Your task to perform on an android device: View the shopping cart on target. Add "razer deathadder" to the cart on target, then select checkout. Image 0: 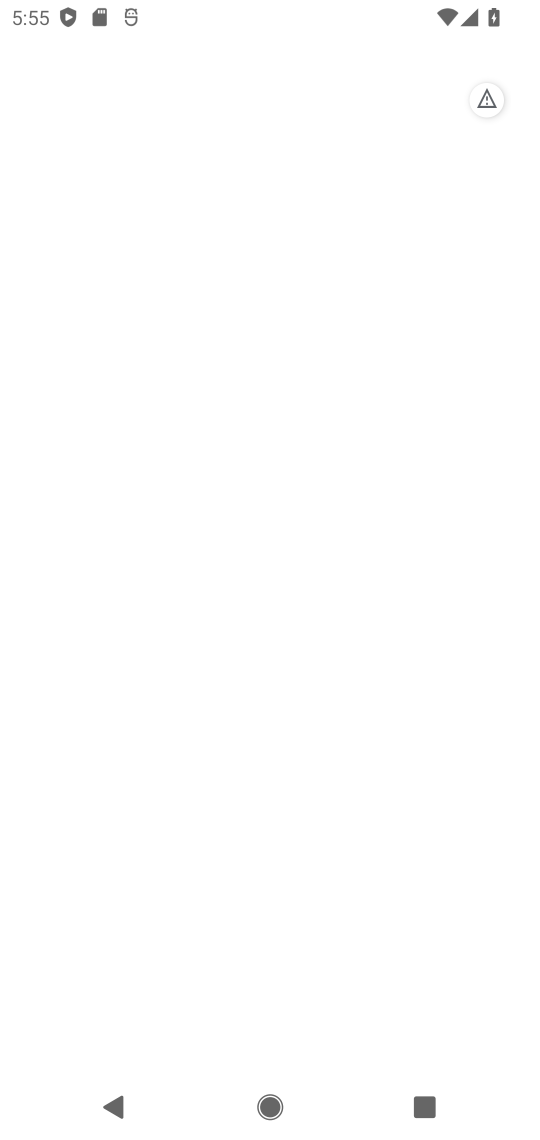
Step 0: click (443, 81)
Your task to perform on an android device: View the shopping cart on target. Add "razer deathadder" to the cart on target, then select checkout. Image 1: 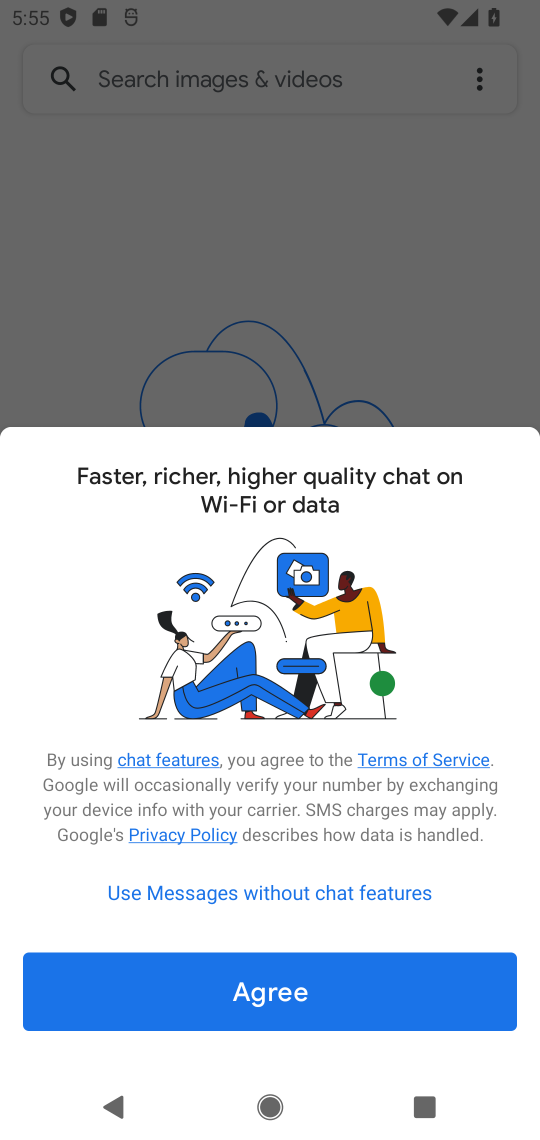
Step 1: press home button
Your task to perform on an android device: View the shopping cart on target. Add "razer deathadder" to the cart on target, then select checkout. Image 2: 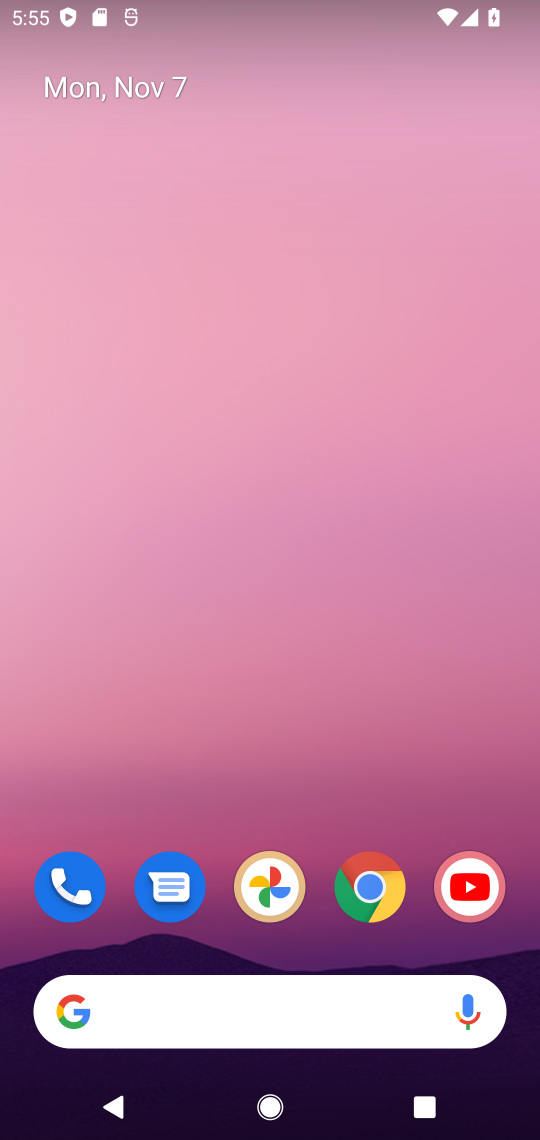
Step 2: click (371, 884)
Your task to perform on an android device: View the shopping cart on target. Add "razer deathadder" to the cart on target, then select checkout. Image 3: 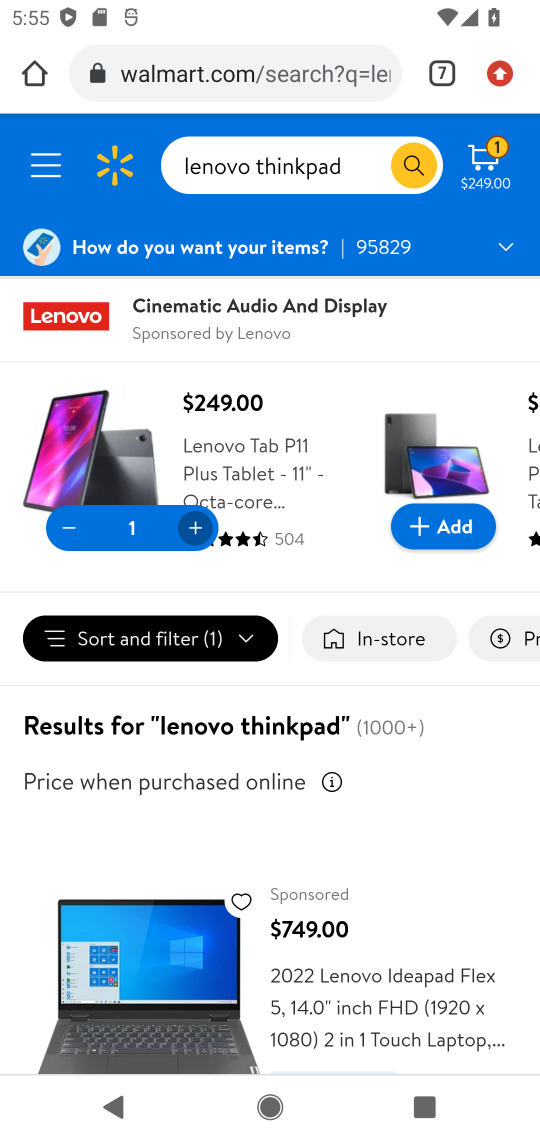
Step 3: click (440, 70)
Your task to perform on an android device: View the shopping cart on target. Add "razer deathadder" to the cart on target, then select checkout. Image 4: 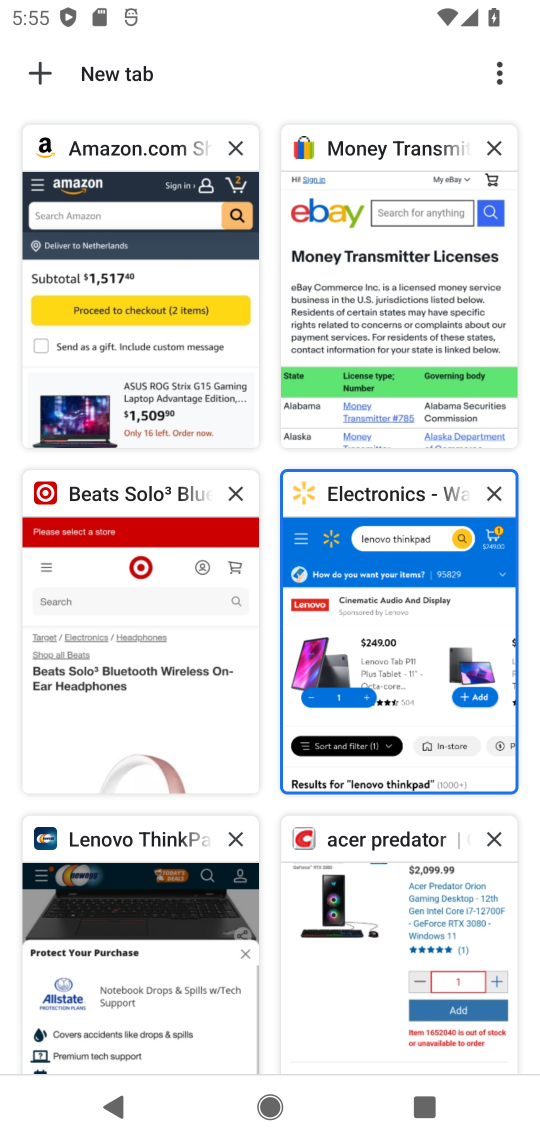
Step 4: click (76, 628)
Your task to perform on an android device: View the shopping cart on target. Add "razer deathadder" to the cart on target, then select checkout. Image 5: 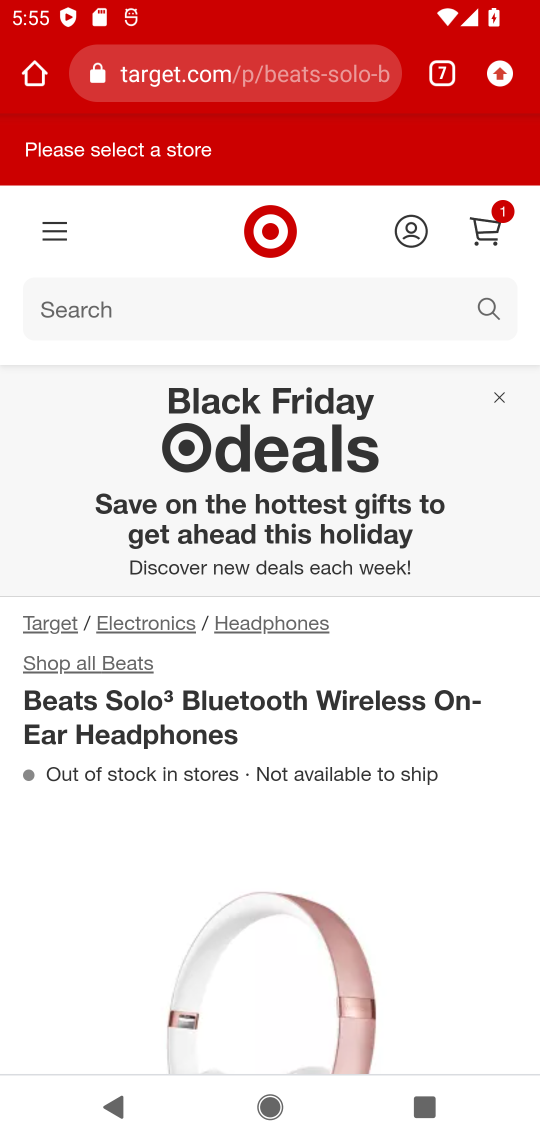
Step 5: click (189, 317)
Your task to perform on an android device: View the shopping cart on target. Add "razer deathadder" to the cart on target, then select checkout. Image 6: 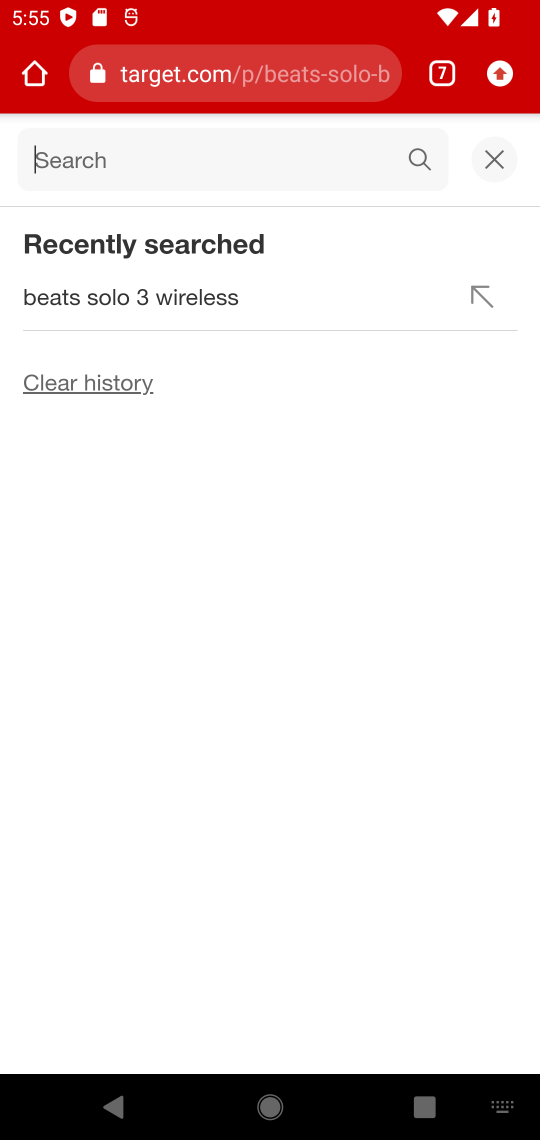
Step 6: type "razer deathadder"
Your task to perform on an android device: View the shopping cart on target. Add "razer deathadder" to the cart on target, then select checkout. Image 7: 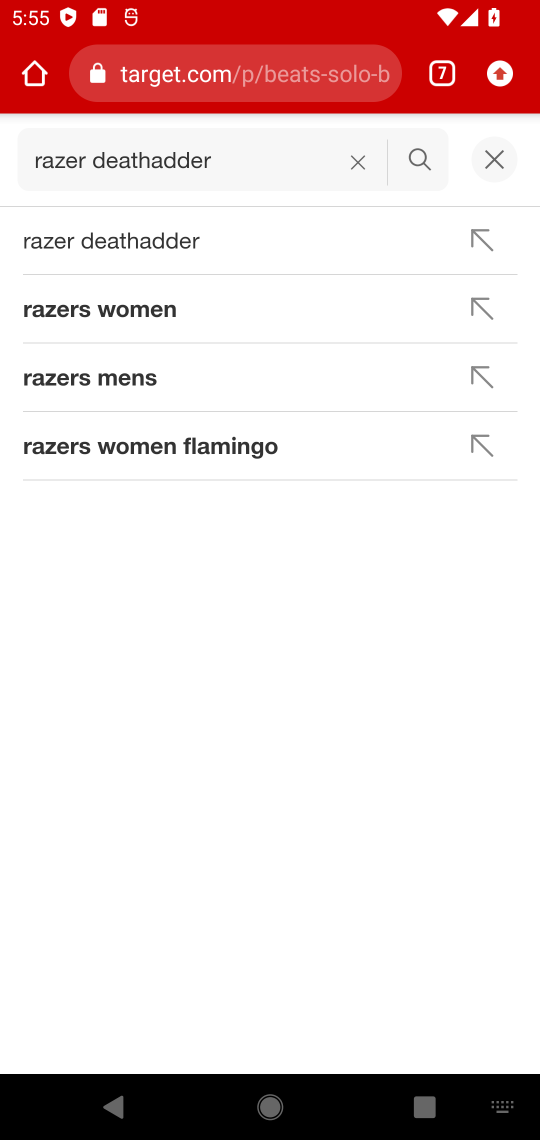
Step 7: click (148, 240)
Your task to perform on an android device: View the shopping cart on target. Add "razer deathadder" to the cart on target, then select checkout. Image 8: 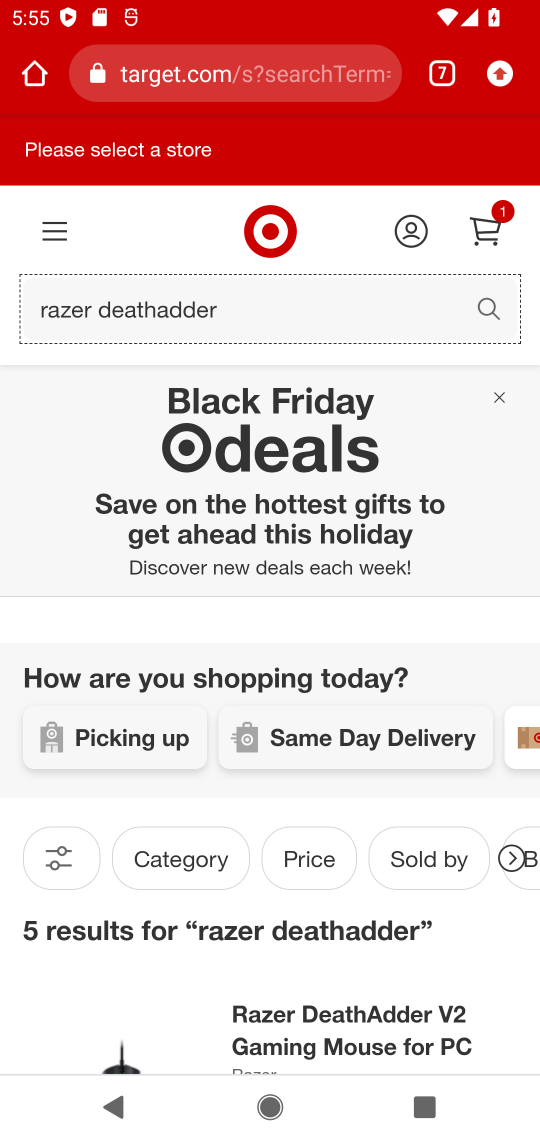
Step 8: drag from (191, 915) to (343, 141)
Your task to perform on an android device: View the shopping cart on target. Add "razer deathadder" to the cart on target, then select checkout. Image 9: 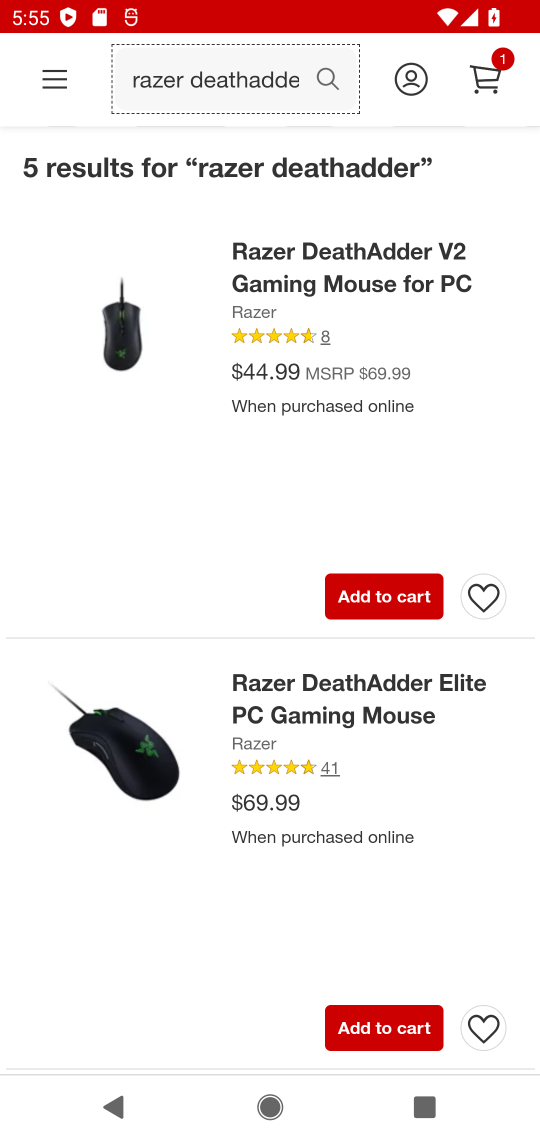
Step 9: click (389, 584)
Your task to perform on an android device: View the shopping cart on target. Add "razer deathadder" to the cart on target, then select checkout. Image 10: 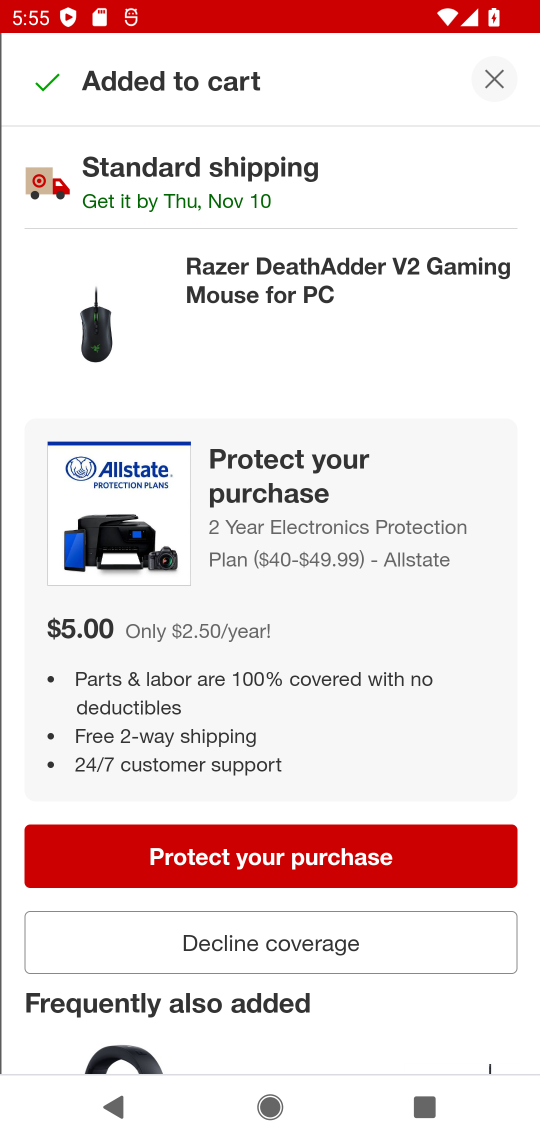
Step 10: click (314, 939)
Your task to perform on an android device: View the shopping cart on target. Add "razer deathadder" to the cart on target, then select checkout. Image 11: 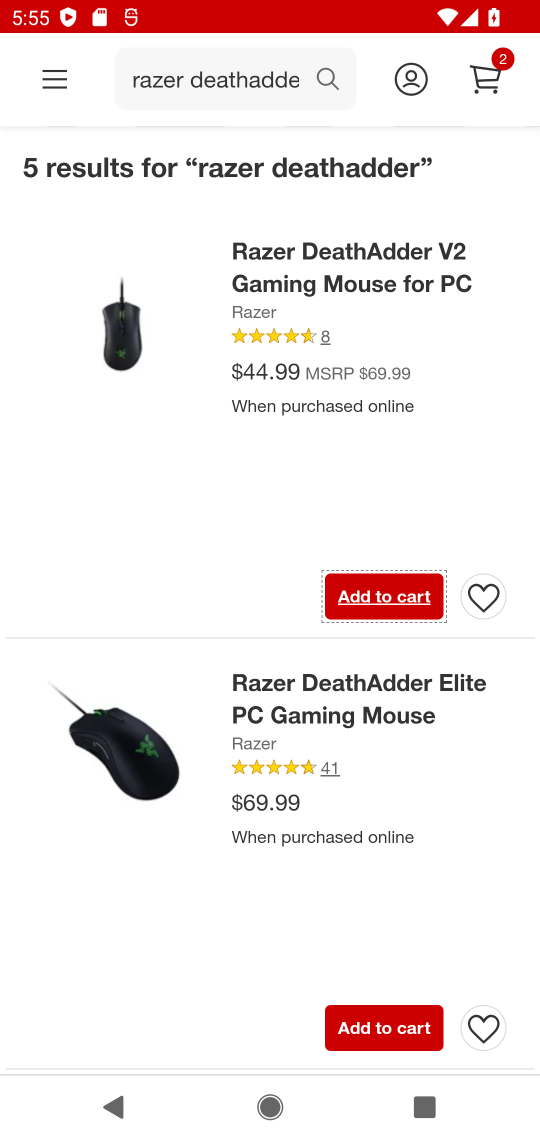
Step 11: click (495, 75)
Your task to perform on an android device: View the shopping cart on target. Add "razer deathadder" to the cart on target, then select checkout. Image 12: 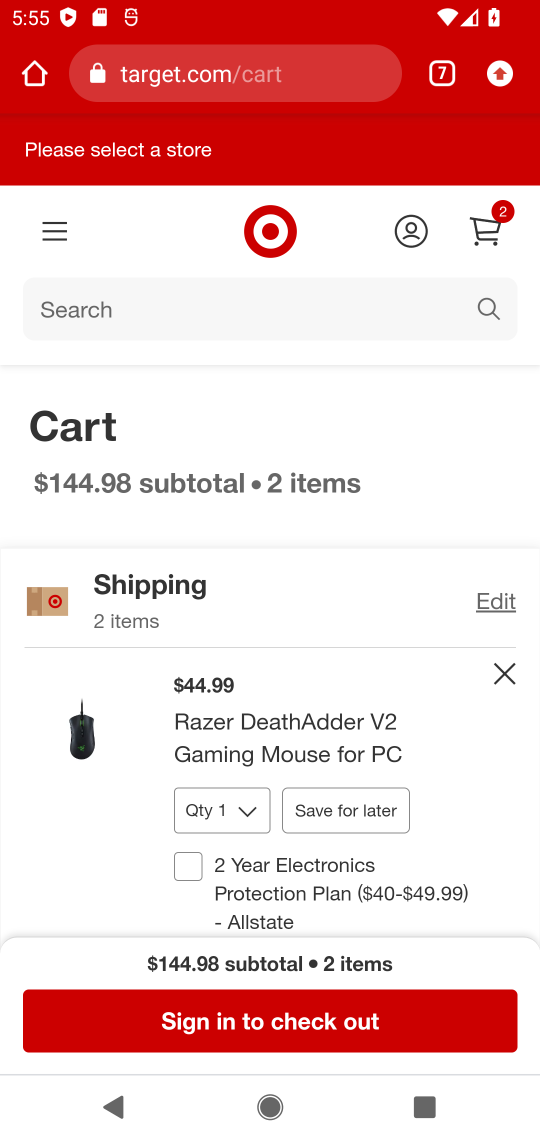
Step 12: click (254, 1044)
Your task to perform on an android device: View the shopping cart on target. Add "razer deathadder" to the cart on target, then select checkout. Image 13: 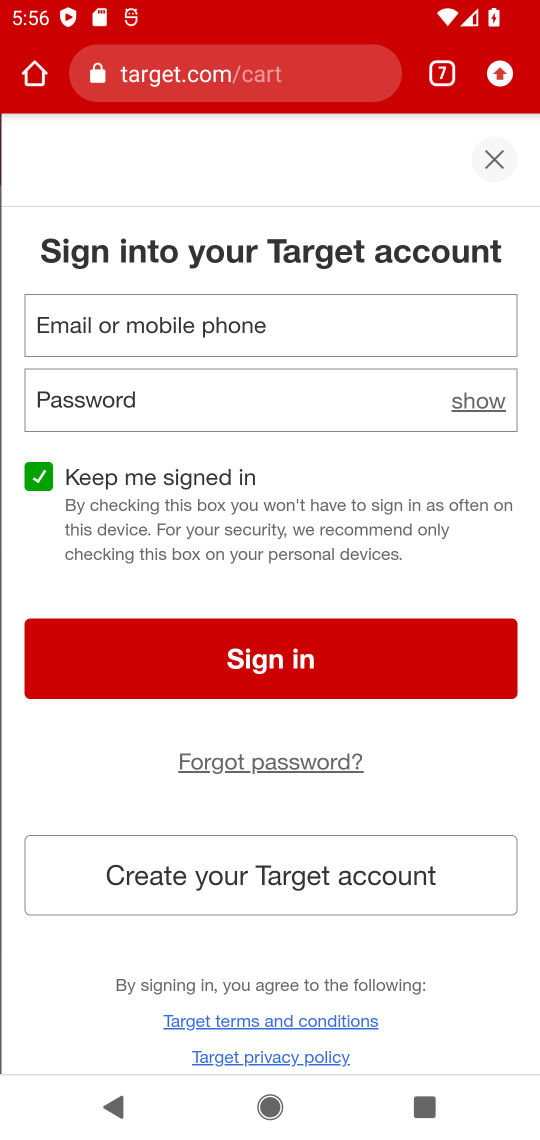
Step 13: task complete